Your task to perform on an android device: set the stopwatch Image 0: 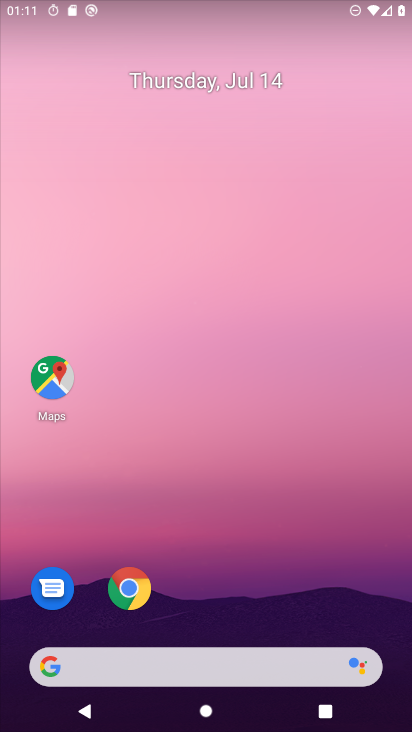
Step 0: drag from (193, 606) to (364, 111)
Your task to perform on an android device: set the stopwatch Image 1: 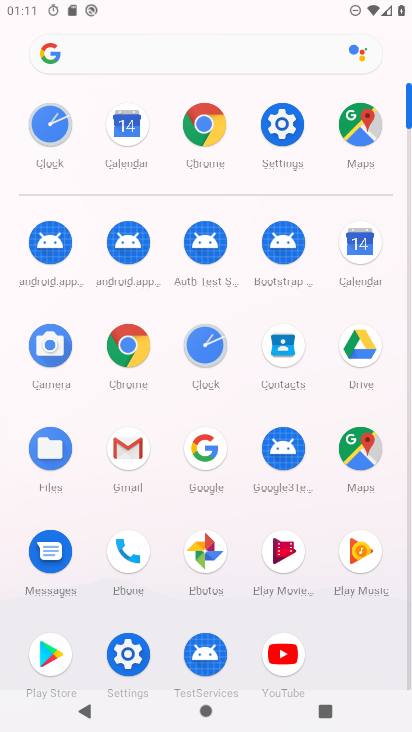
Step 1: click (205, 351)
Your task to perform on an android device: set the stopwatch Image 2: 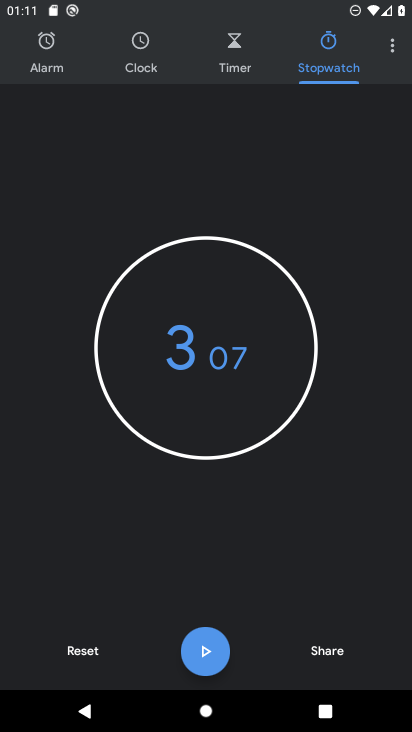
Step 2: click (84, 651)
Your task to perform on an android device: set the stopwatch Image 3: 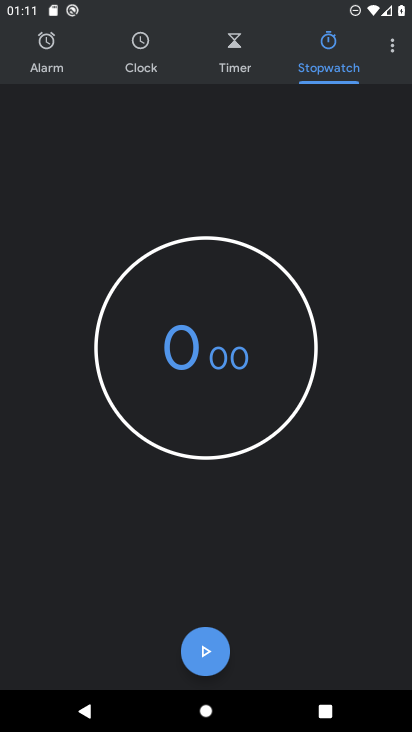
Step 3: click (209, 373)
Your task to perform on an android device: set the stopwatch Image 4: 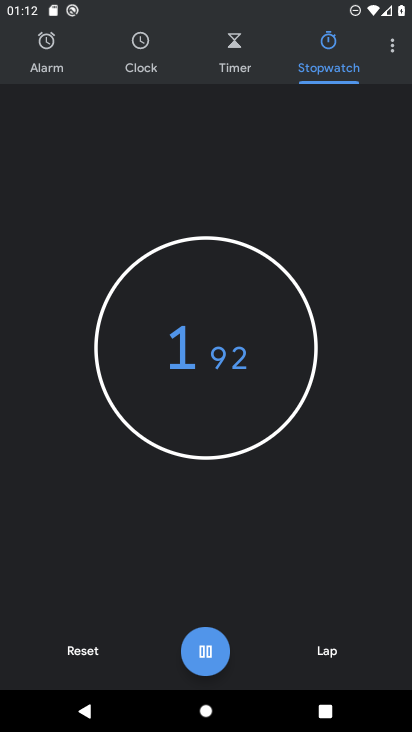
Step 4: click (209, 659)
Your task to perform on an android device: set the stopwatch Image 5: 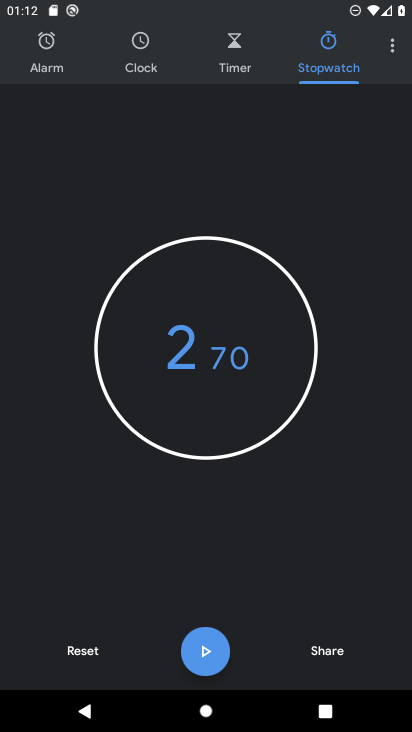
Step 5: task complete